Your task to perform on an android device: Show me the alarms in the clock app Image 0: 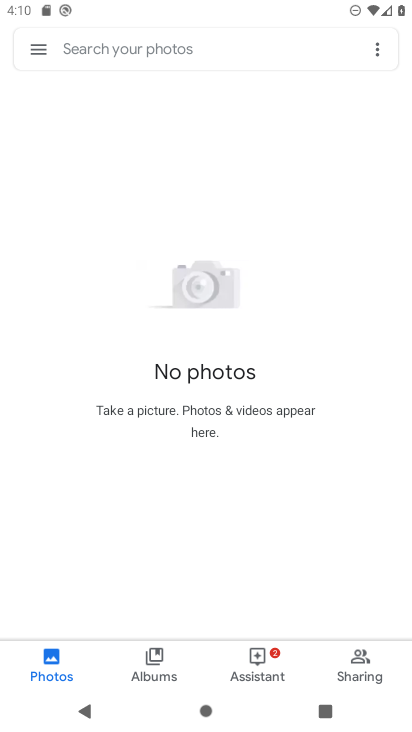
Step 0: press home button
Your task to perform on an android device: Show me the alarms in the clock app Image 1: 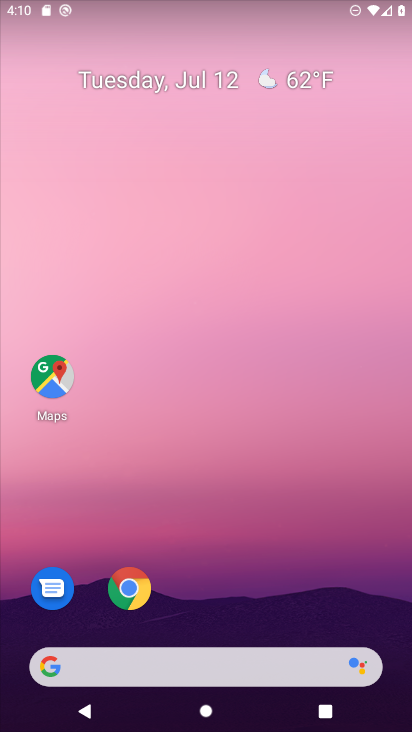
Step 1: drag from (254, 617) to (283, 185)
Your task to perform on an android device: Show me the alarms in the clock app Image 2: 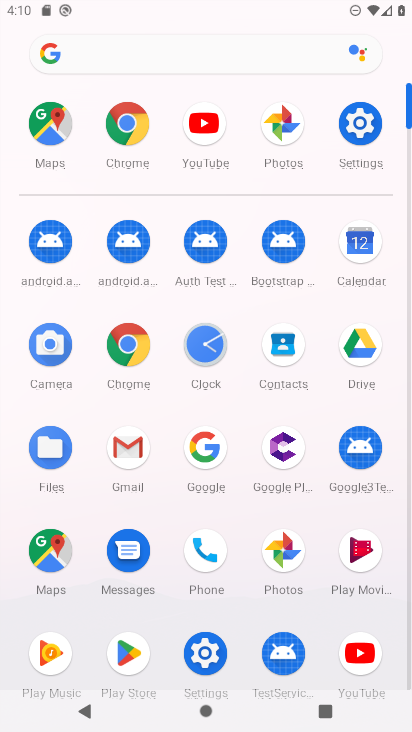
Step 2: click (215, 353)
Your task to perform on an android device: Show me the alarms in the clock app Image 3: 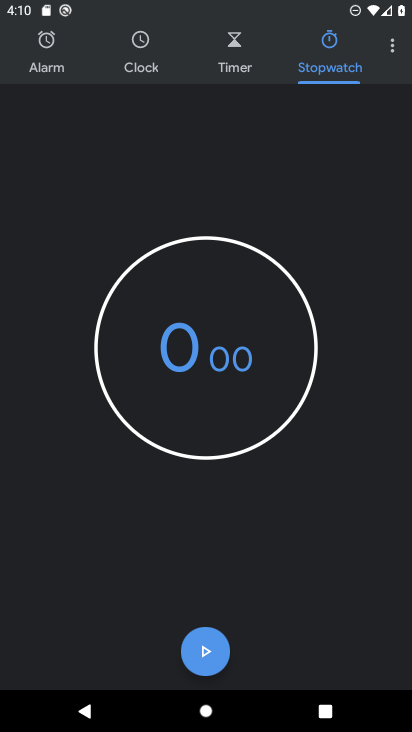
Step 3: click (35, 54)
Your task to perform on an android device: Show me the alarms in the clock app Image 4: 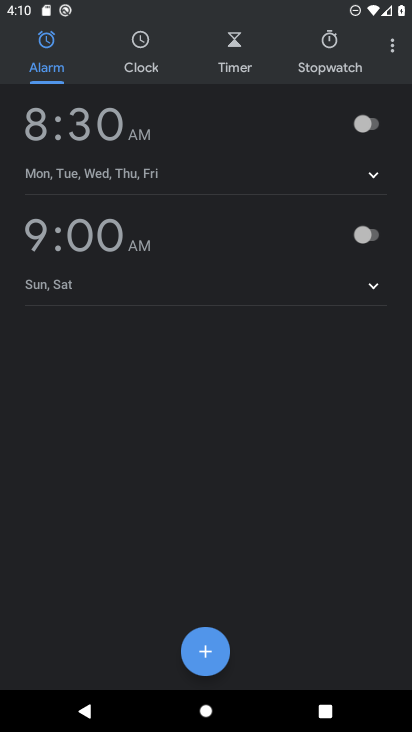
Step 4: task complete